Your task to perform on an android device: Go to Amazon Image 0: 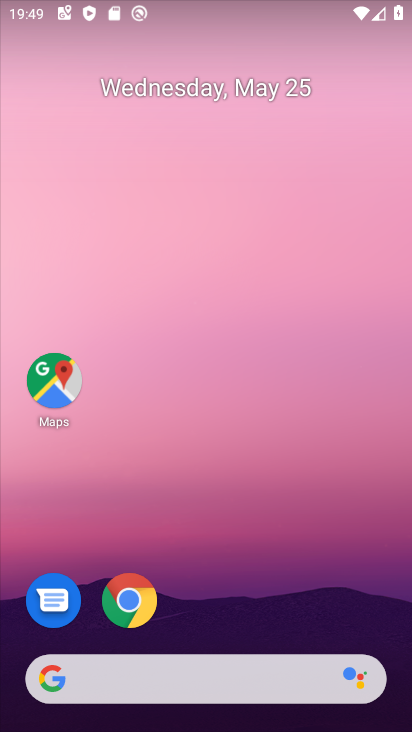
Step 0: drag from (297, 598) to (294, 200)
Your task to perform on an android device: Go to Amazon Image 1: 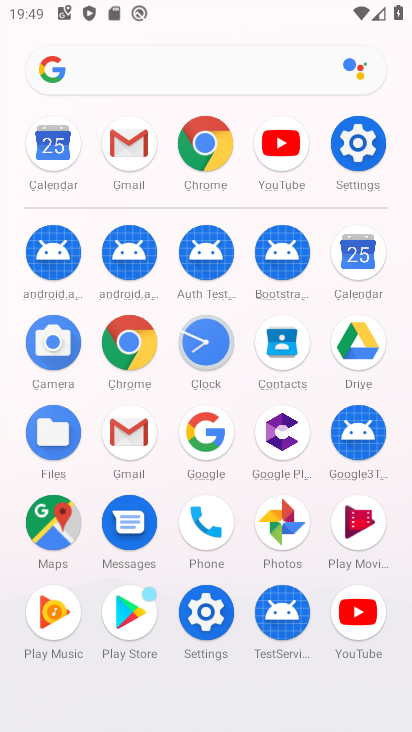
Step 1: click (132, 349)
Your task to perform on an android device: Go to Amazon Image 2: 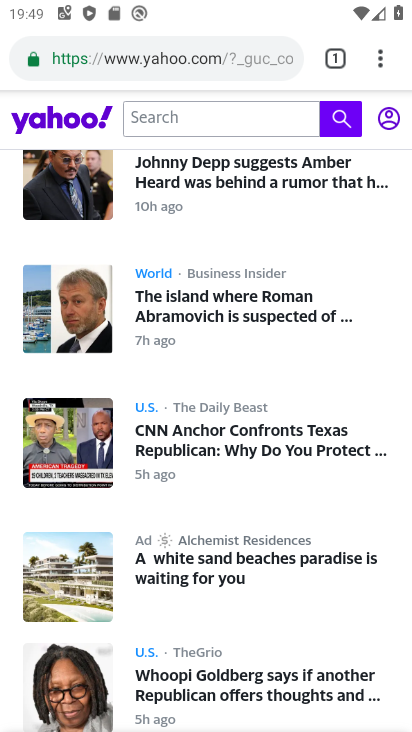
Step 2: click (335, 60)
Your task to perform on an android device: Go to Amazon Image 3: 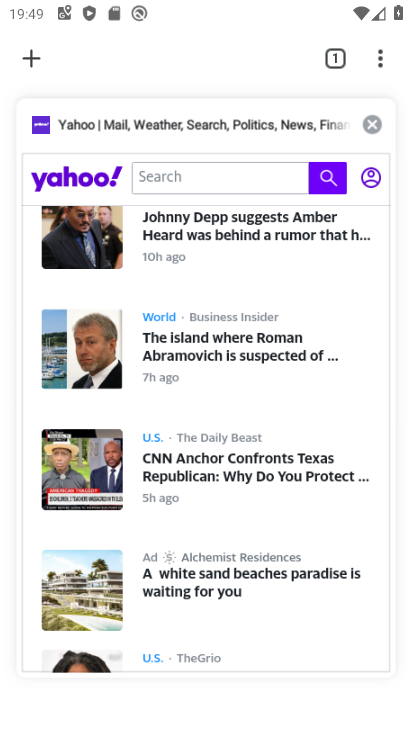
Step 3: click (23, 52)
Your task to perform on an android device: Go to Amazon Image 4: 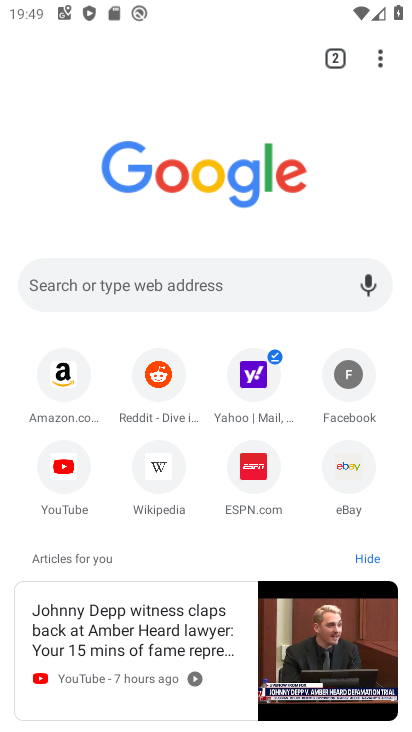
Step 4: click (79, 381)
Your task to perform on an android device: Go to Amazon Image 5: 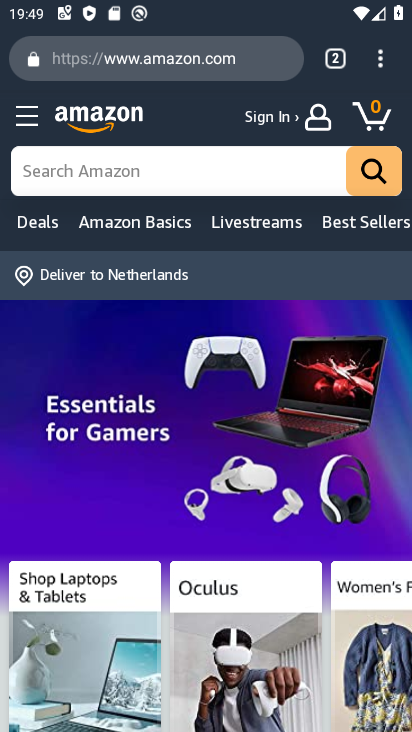
Step 5: task complete